Your task to perform on an android device: open a new tab in the chrome app Image 0: 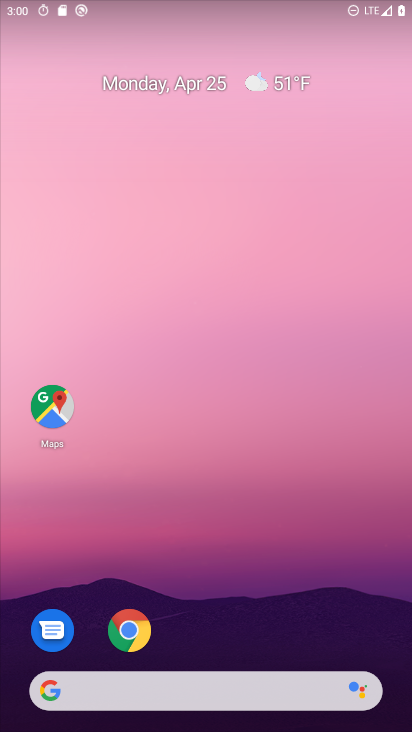
Step 0: drag from (222, 601) to (303, 81)
Your task to perform on an android device: open a new tab in the chrome app Image 1: 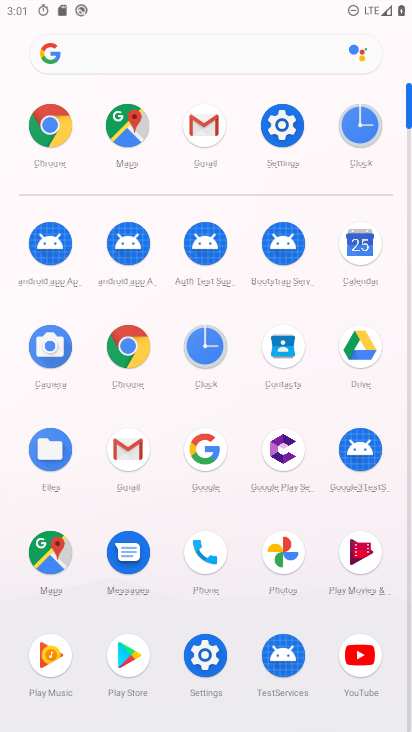
Step 1: click (118, 353)
Your task to perform on an android device: open a new tab in the chrome app Image 2: 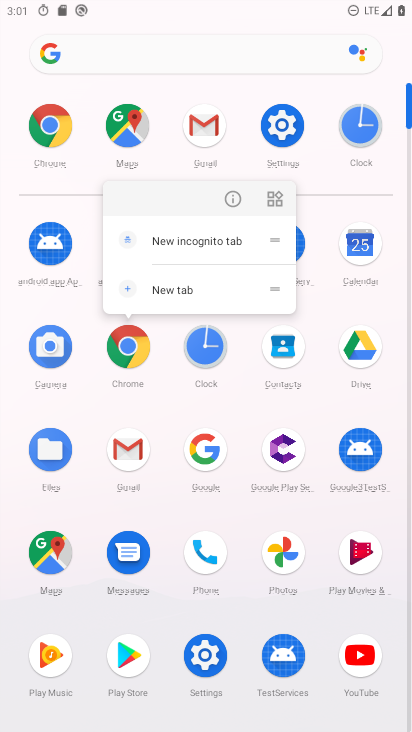
Step 2: click (210, 200)
Your task to perform on an android device: open a new tab in the chrome app Image 3: 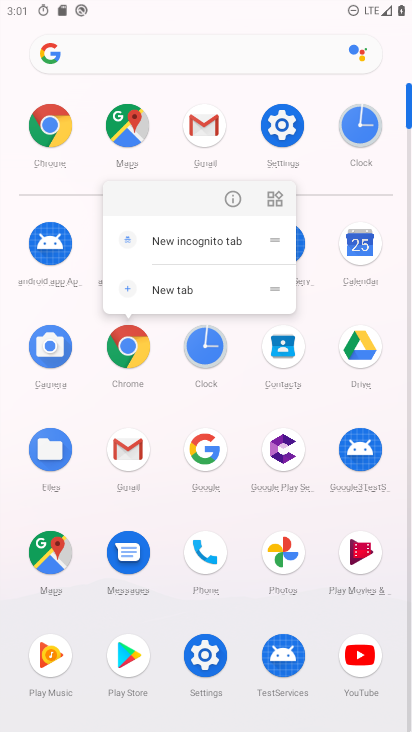
Step 3: click (233, 200)
Your task to perform on an android device: open a new tab in the chrome app Image 4: 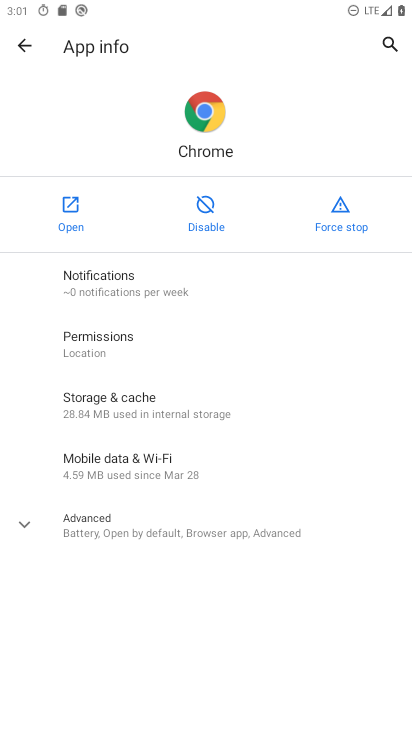
Step 4: click (77, 214)
Your task to perform on an android device: open a new tab in the chrome app Image 5: 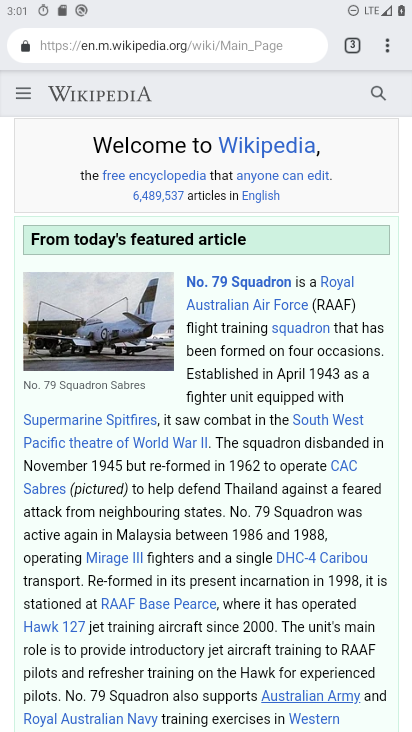
Step 5: click (346, 47)
Your task to perform on an android device: open a new tab in the chrome app Image 6: 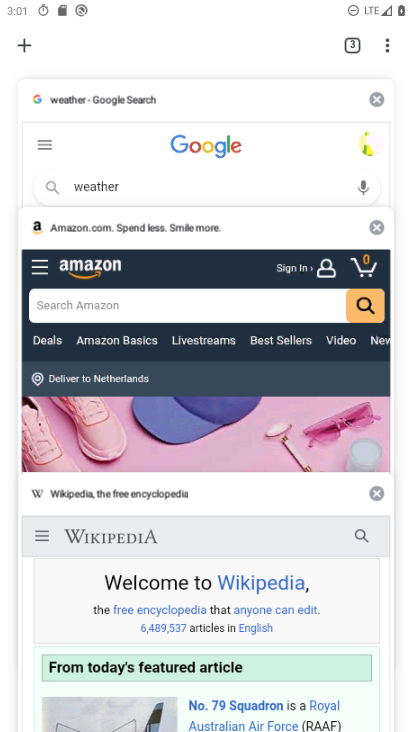
Step 6: click (19, 40)
Your task to perform on an android device: open a new tab in the chrome app Image 7: 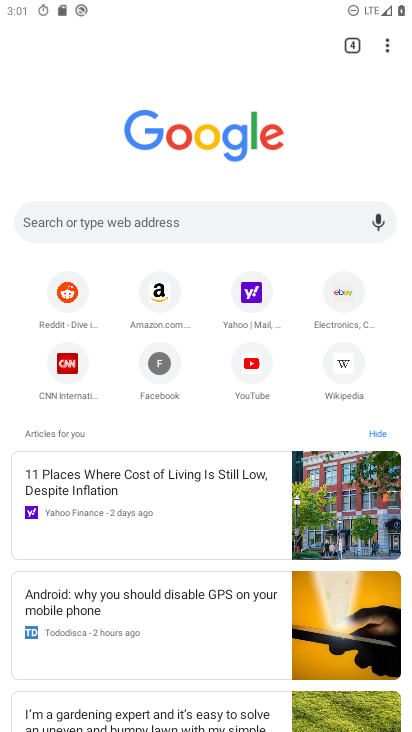
Step 7: task complete